Your task to perform on an android device: refresh tabs in the chrome app Image 0: 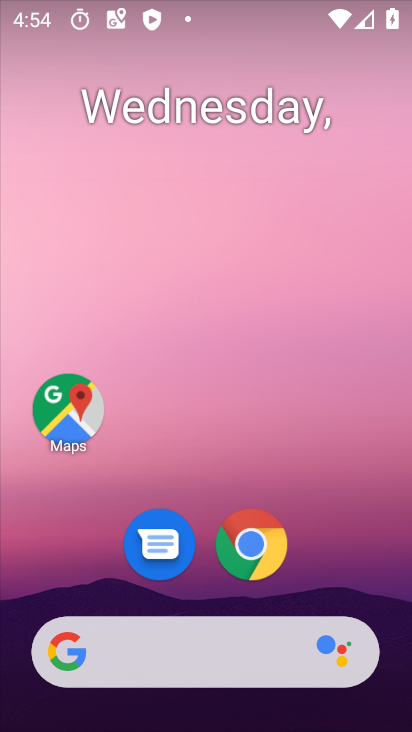
Step 0: drag from (192, 611) to (230, 70)
Your task to perform on an android device: refresh tabs in the chrome app Image 1: 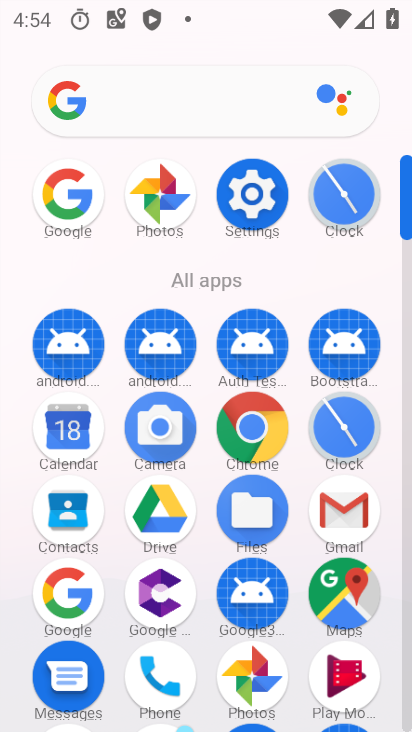
Step 1: click (259, 420)
Your task to perform on an android device: refresh tabs in the chrome app Image 2: 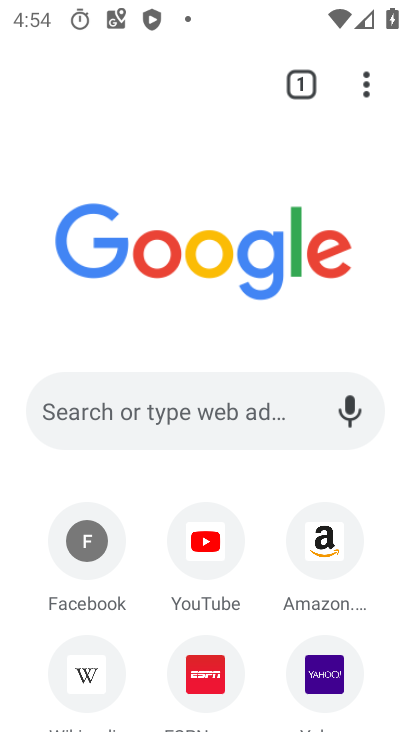
Step 2: click (369, 90)
Your task to perform on an android device: refresh tabs in the chrome app Image 3: 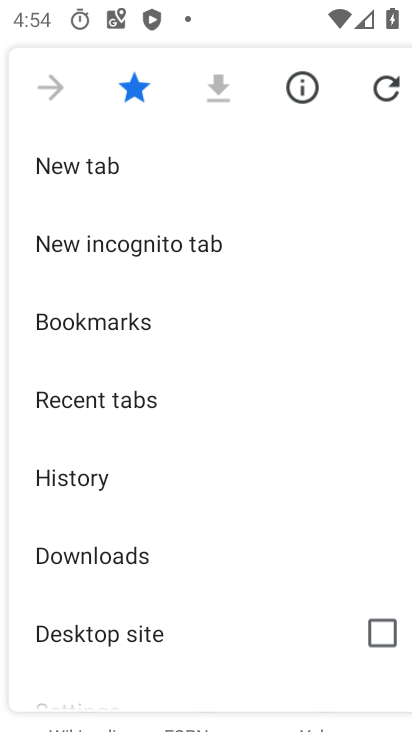
Step 3: click (390, 87)
Your task to perform on an android device: refresh tabs in the chrome app Image 4: 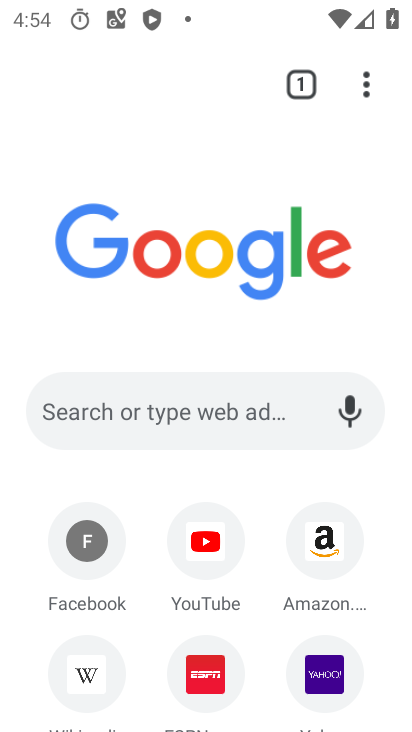
Step 4: task complete